Your task to perform on an android device: Open Chrome and go to the settings page Image 0: 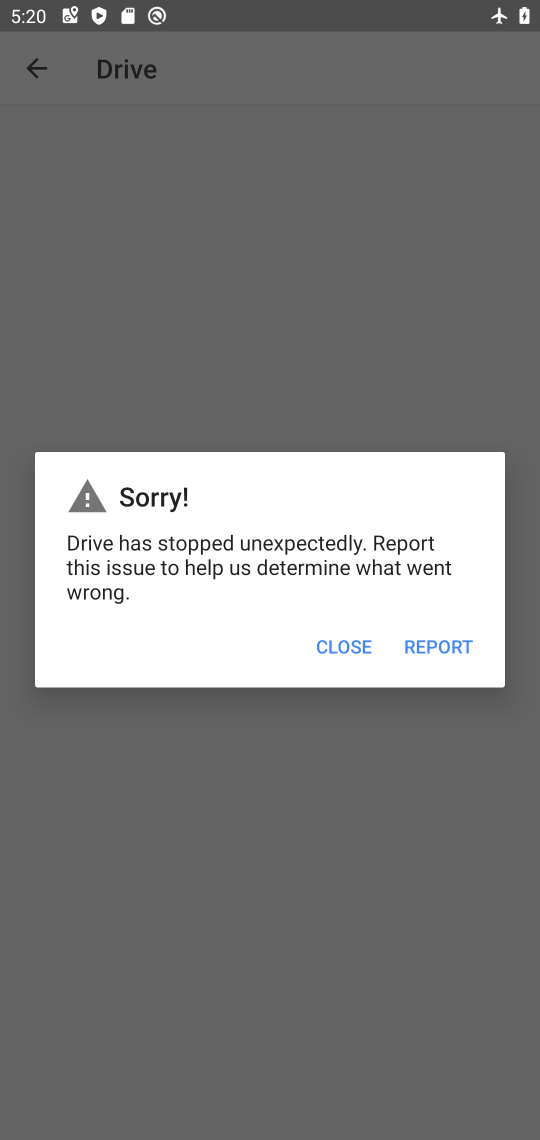
Step 0: press home button
Your task to perform on an android device: Open Chrome and go to the settings page Image 1: 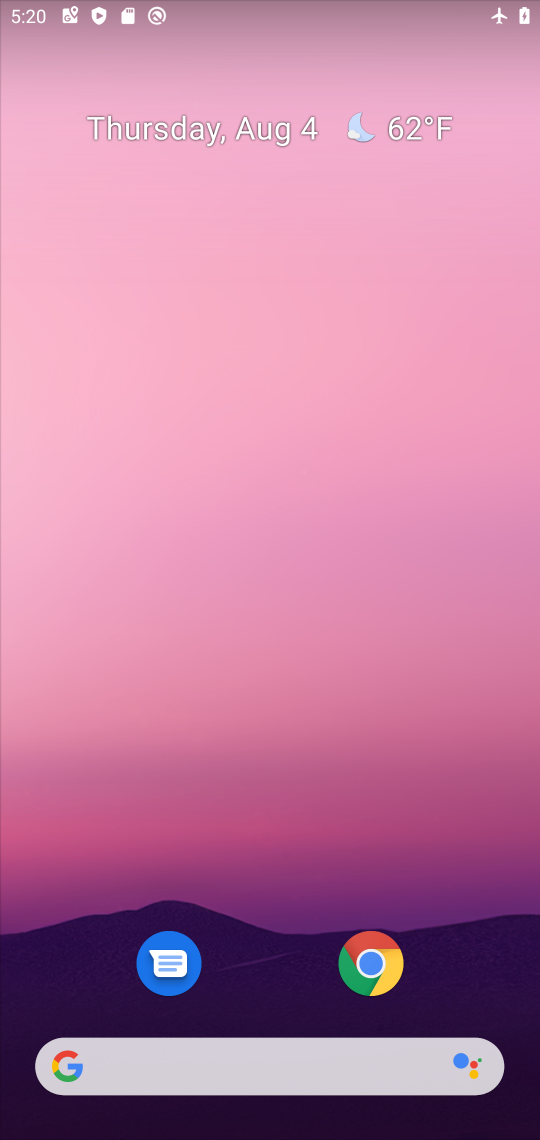
Step 1: click (373, 953)
Your task to perform on an android device: Open Chrome and go to the settings page Image 2: 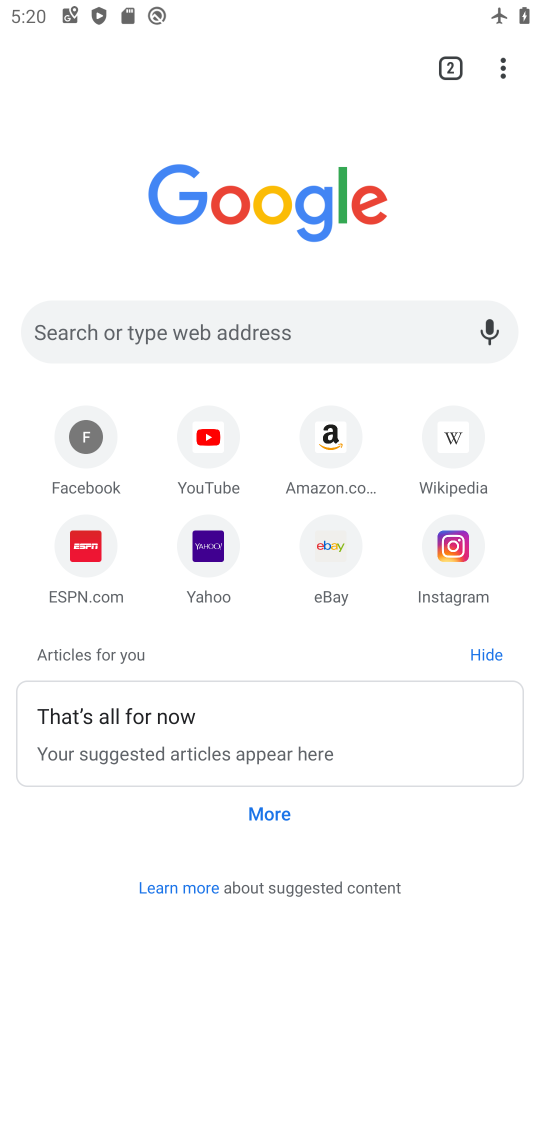
Step 2: click (506, 65)
Your task to perform on an android device: Open Chrome and go to the settings page Image 3: 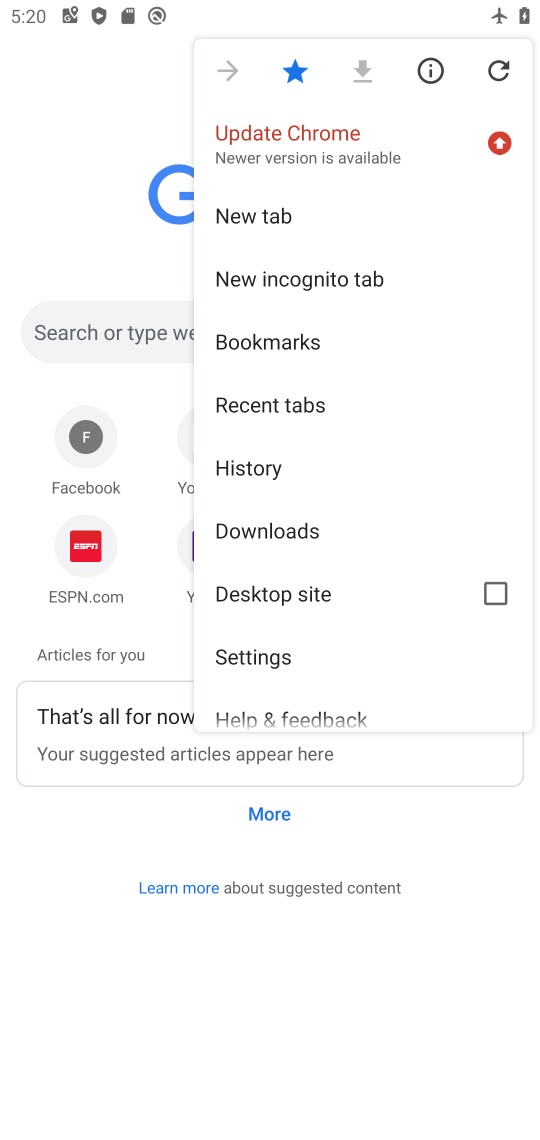
Step 3: click (275, 650)
Your task to perform on an android device: Open Chrome and go to the settings page Image 4: 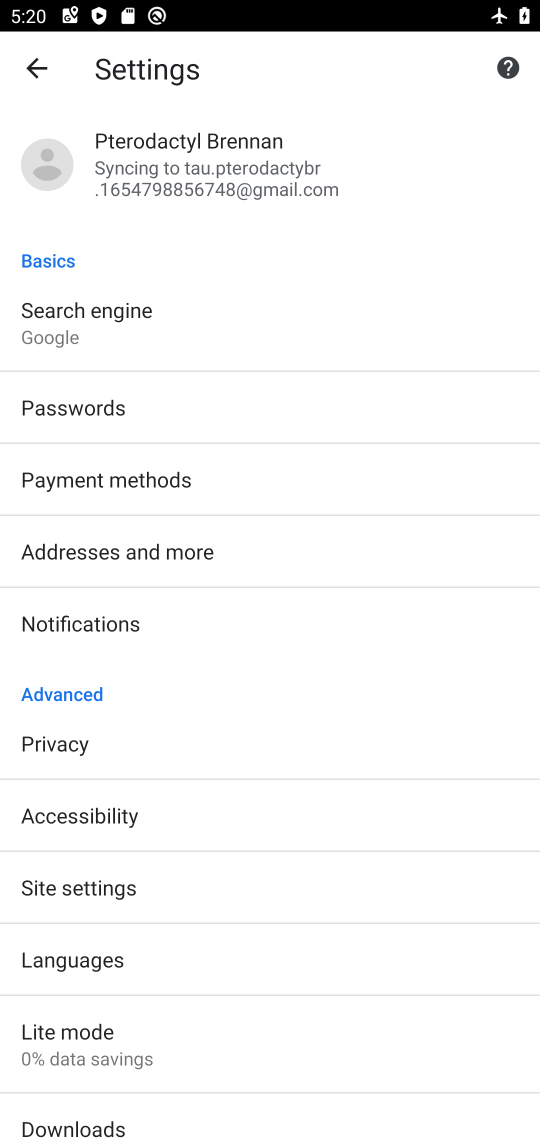
Step 4: task complete